Your task to perform on an android device: Open Google Chrome and open the bookmarks view Image 0: 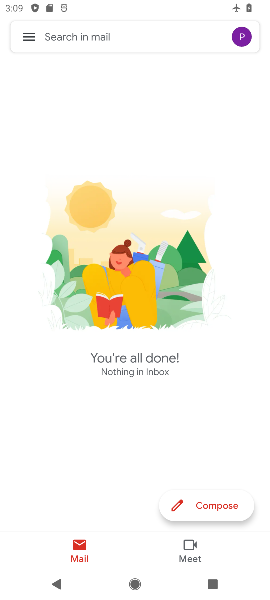
Step 0: press home button
Your task to perform on an android device: Open Google Chrome and open the bookmarks view Image 1: 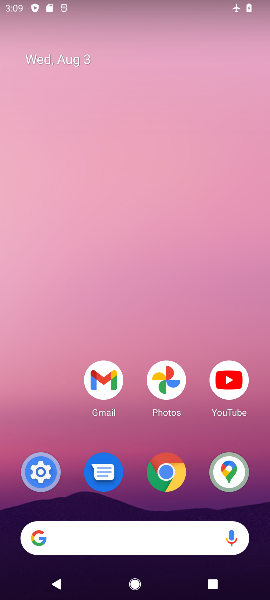
Step 1: drag from (187, 541) to (109, 54)
Your task to perform on an android device: Open Google Chrome and open the bookmarks view Image 2: 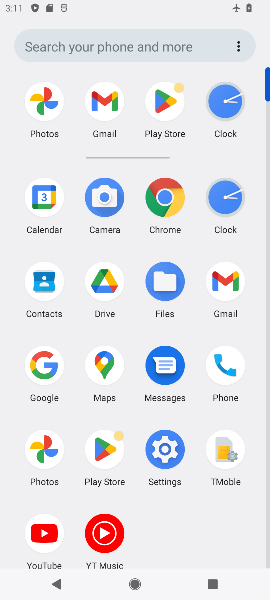
Step 2: click (156, 200)
Your task to perform on an android device: Open Google Chrome and open the bookmarks view Image 3: 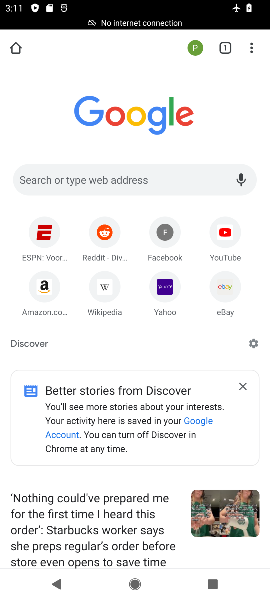
Step 3: click (250, 43)
Your task to perform on an android device: Open Google Chrome and open the bookmarks view Image 4: 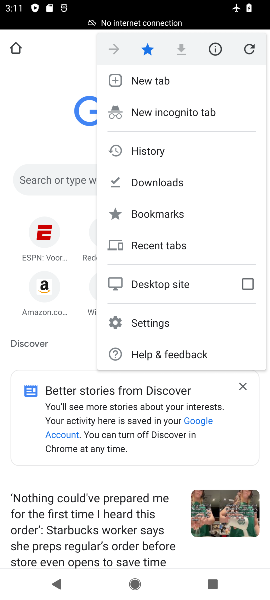
Step 4: click (156, 220)
Your task to perform on an android device: Open Google Chrome and open the bookmarks view Image 5: 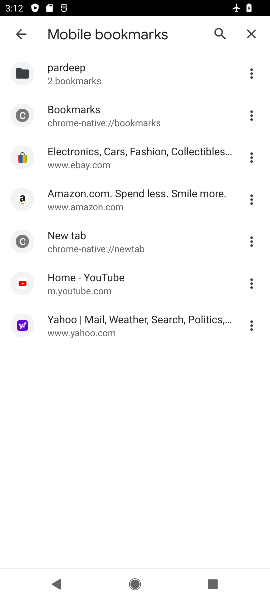
Step 5: task complete